Your task to perform on an android device: allow notifications from all sites in the chrome app Image 0: 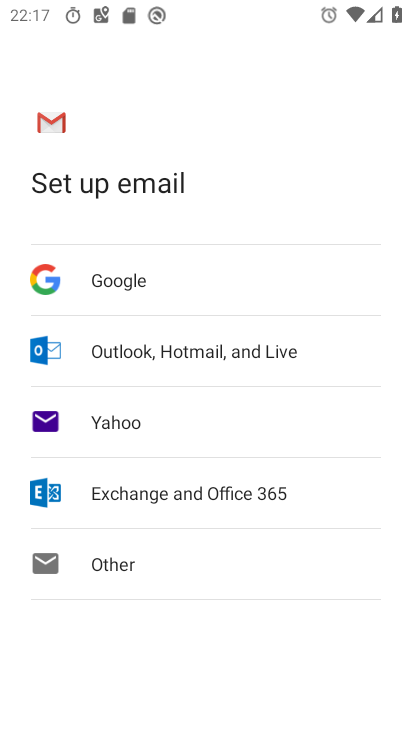
Step 0: press home button
Your task to perform on an android device: allow notifications from all sites in the chrome app Image 1: 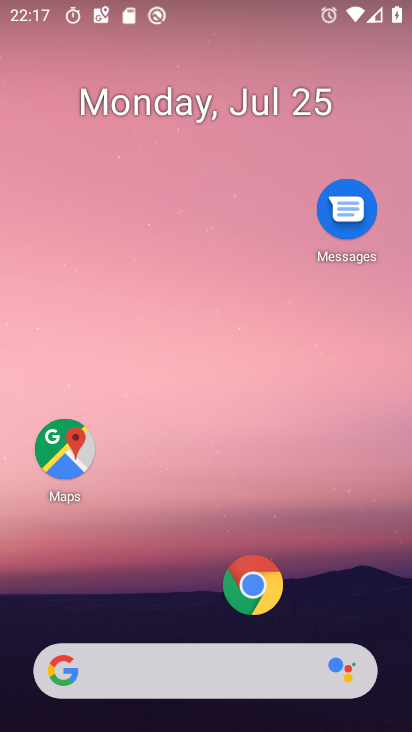
Step 1: click (263, 584)
Your task to perform on an android device: allow notifications from all sites in the chrome app Image 2: 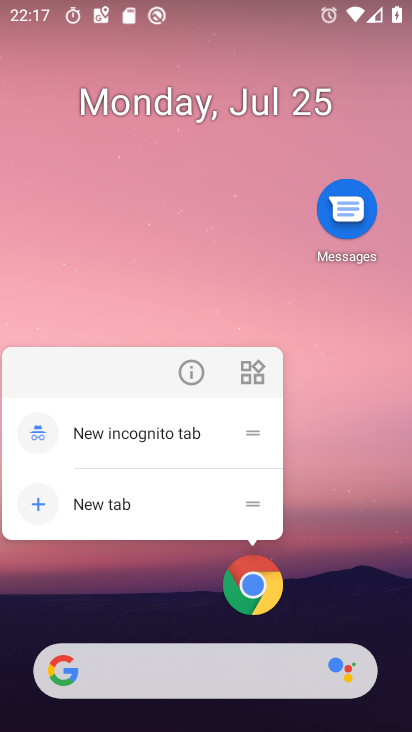
Step 2: click (253, 584)
Your task to perform on an android device: allow notifications from all sites in the chrome app Image 3: 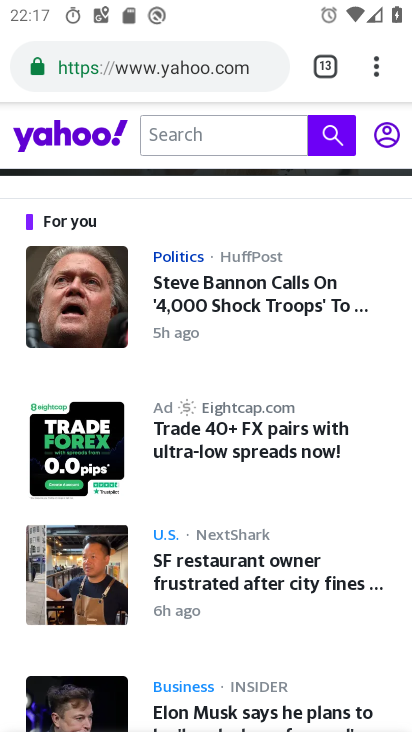
Step 3: drag from (376, 77) to (231, 586)
Your task to perform on an android device: allow notifications from all sites in the chrome app Image 4: 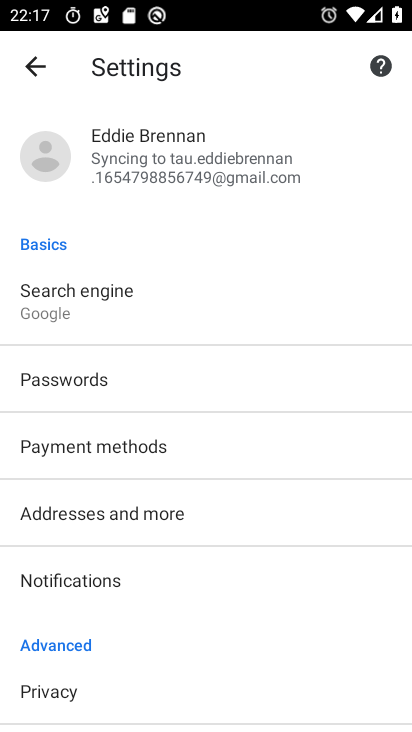
Step 4: drag from (166, 655) to (300, 267)
Your task to perform on an android device: allow notifications from all sites in the chrome app Image 5: 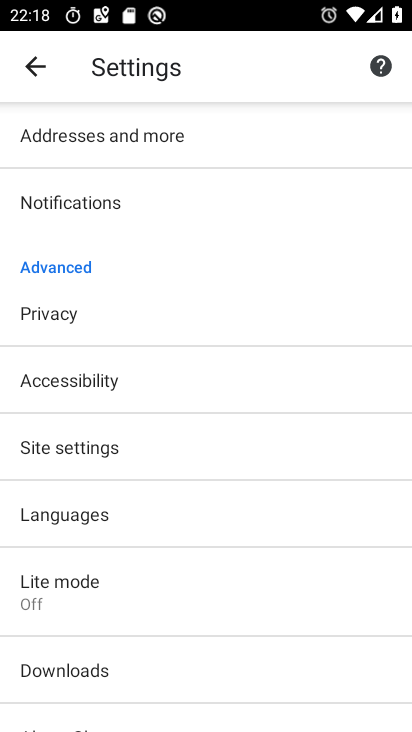
Step 5: click (77, 466)
Your task to perform on an android device: allow notifications from all sites in the chrome app Image 6: 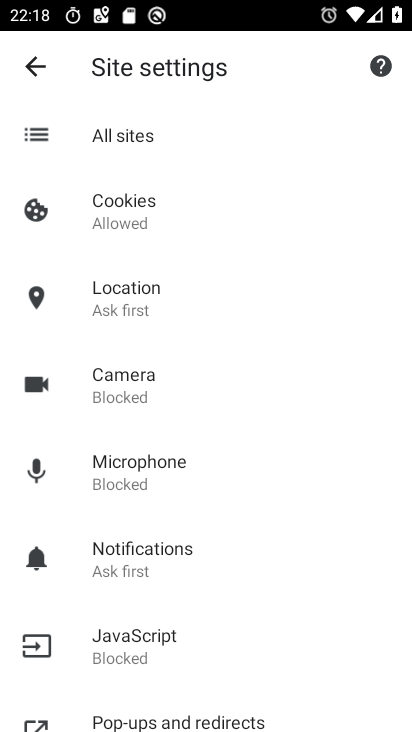
Step 6: click (141, 563)
Your task to perform on an android device: allow notifications from all sites in the chrome app Image 7: 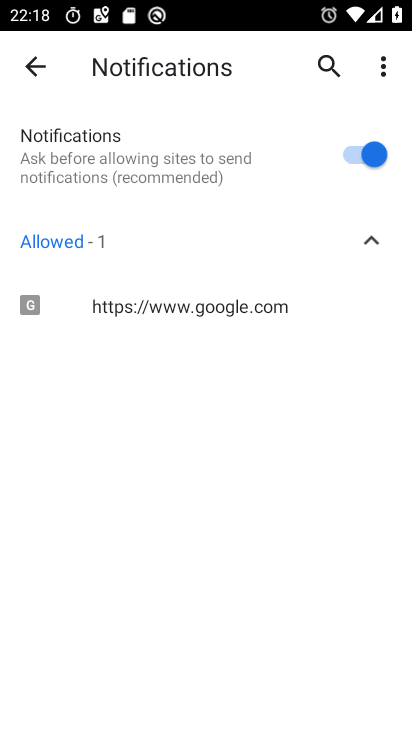
Step 7: task complete